Your task to perform on an android device: Open Chrome and go to settings Image 0: 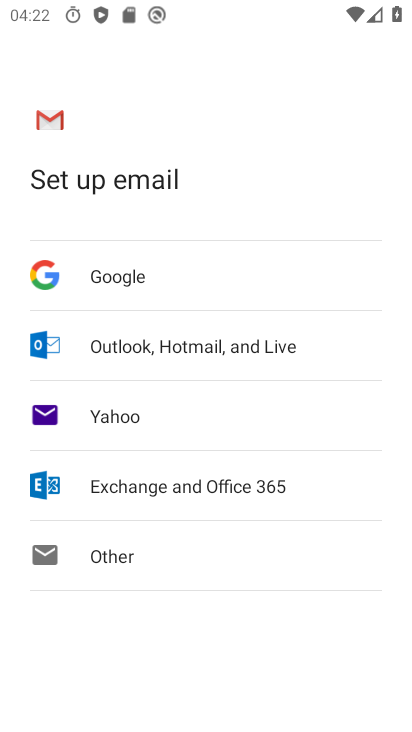
Step 0: press home button
Your task to perform on an android device: Open Chrome and go to settings Image 1: 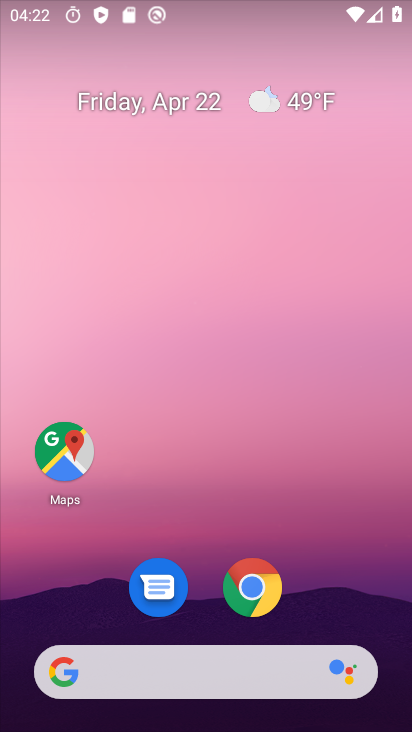
Step 1: click (251, 592)
Your task to perform on an android device: Open Chrome and go to settings Image 2: 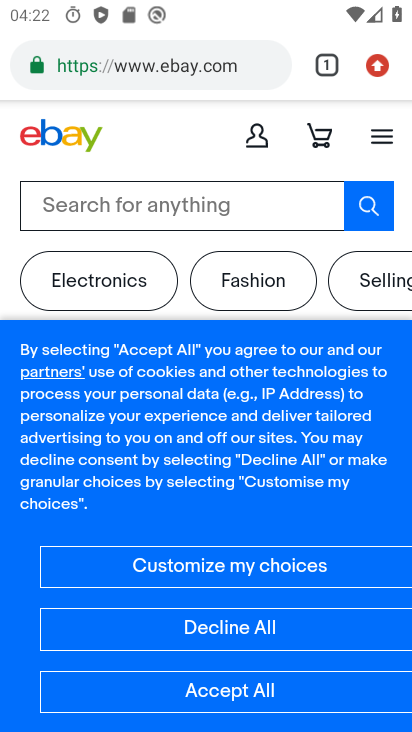
Step 2: click (377, 67)
Your task to perform on an android device: Open Chrome and go to settings Image 3: 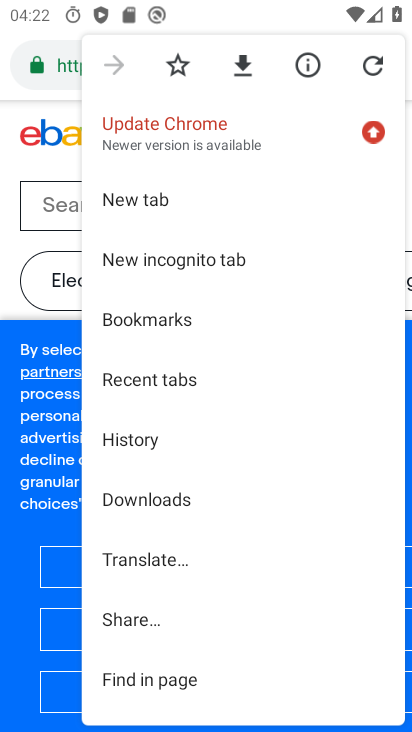
Step 3: drag from (235, 590) to (234, 266)
Your task to perform on an android device: Open Chrome and go to settings Image 4: 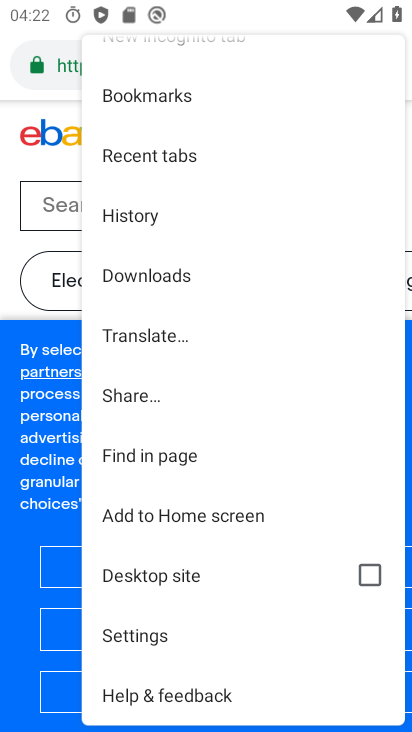
Step 4: click (133, 635)
Your task to perform on an android device: Open Chrome and go to settings Image 5: 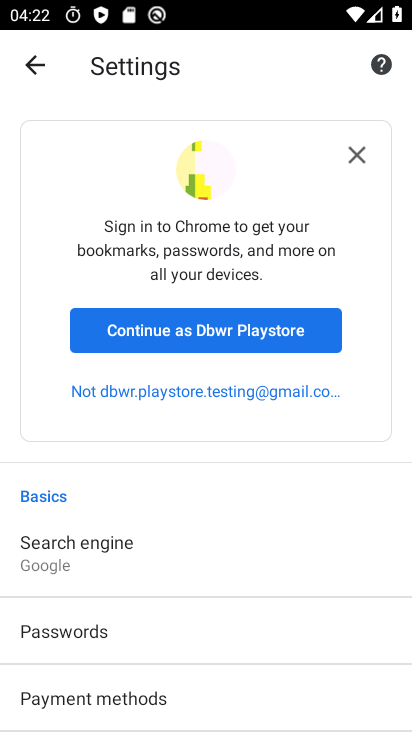
Step 5: task complete